Your task to perform on an android device: create a new album in the google photos Image 0: 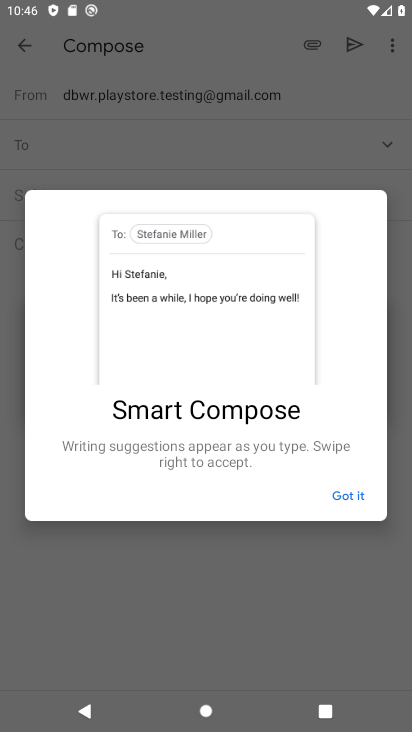
Step 0: press home button
Your task to perform on an android device: create a new album in the google photos Image 1: 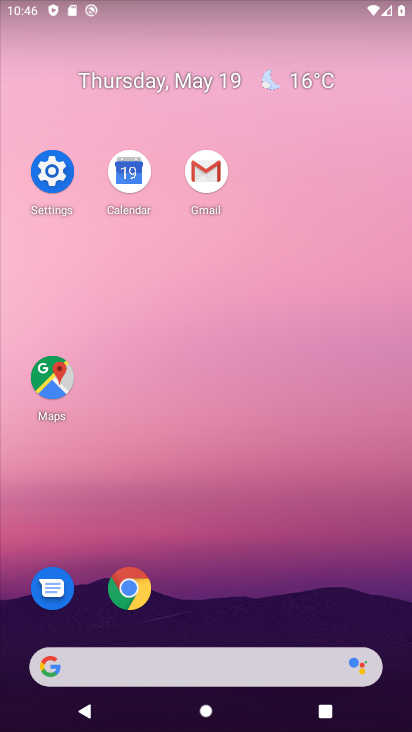
Step 1: drag from (264, 609) to (292, 287)
Your task to perform on an android device: create a new album in the google photos Image 2: 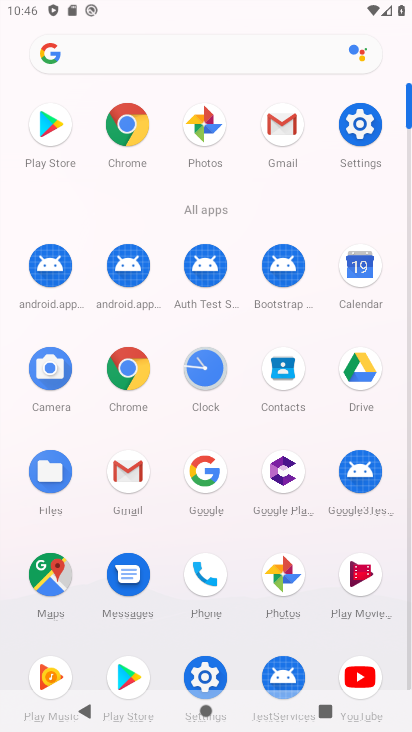
Step 2: click (284, 562)
Your task to perform on an android device: create a new album in the google photos Image 3: 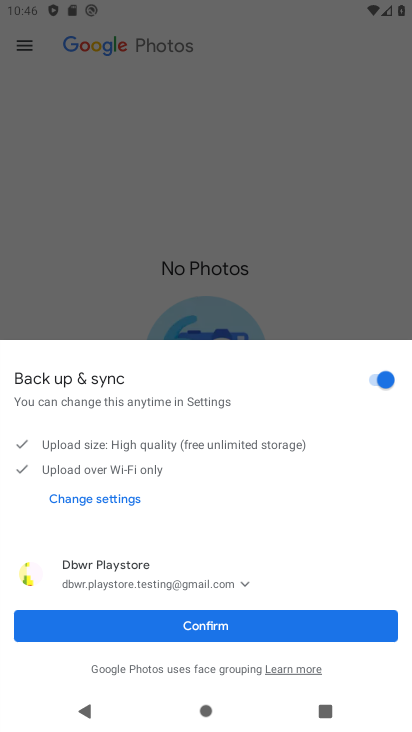
Step 3: click (280, 620)
Your task to perform on an android device: create a new album in the google photos Image 4: 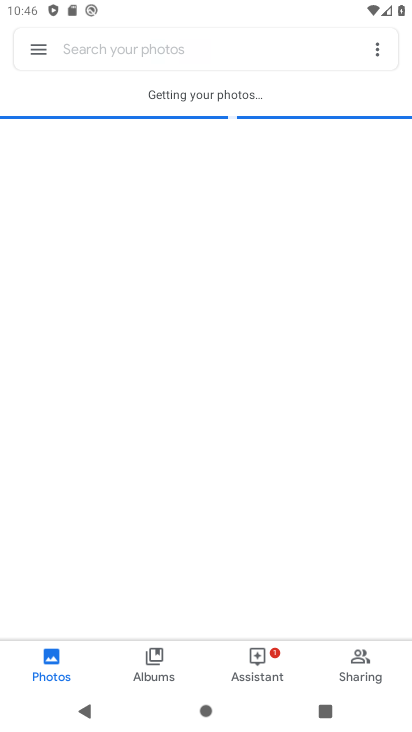
Step 4: click (142, 662)
Your task to perform on an android device: create a new album in the google photos Image 5: 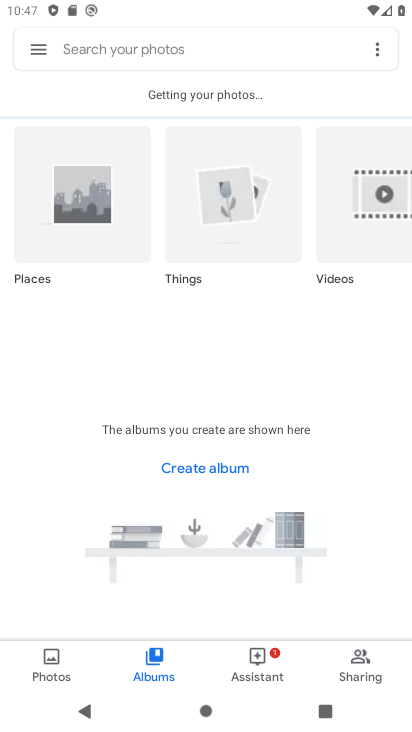
Step 5: drag from (338, 515) to (382, 276)
Your task to perform on an android device: create a new album in the google photos Image 6: 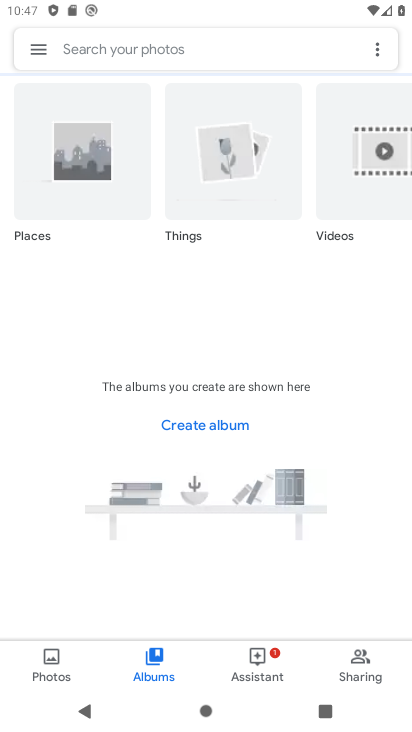
Step 6: click (232, 421)
Your task to perform on an android device: create a new album in the google photos Image 7: 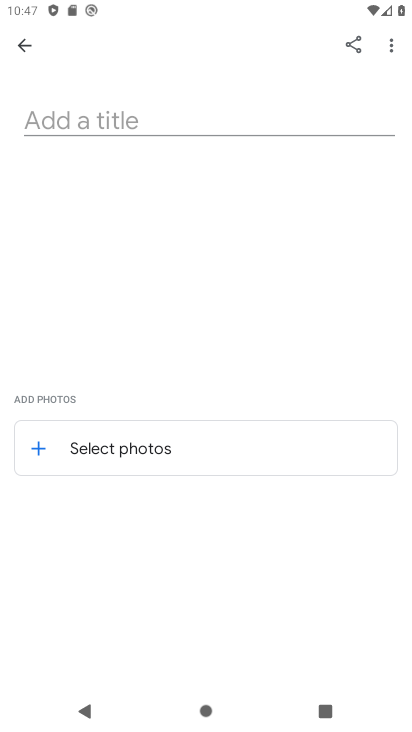
Step 7: click (294, 115)
Your task to perform on an android device: create a new album in the google photos Image 8: 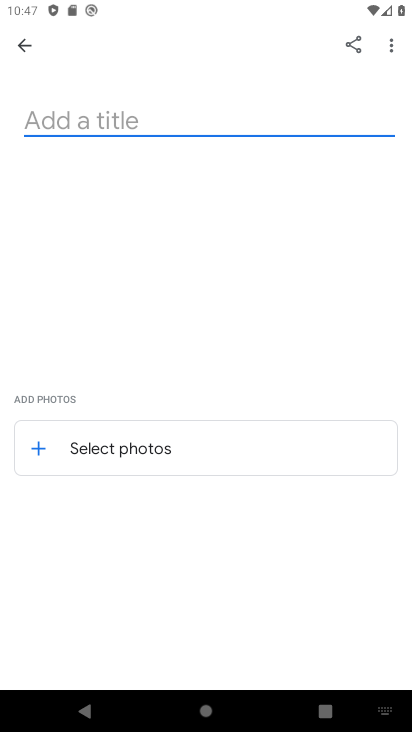
Step 8: type "ccc"
Your task to perform on an android device: create a new album in the google photos Image 9: 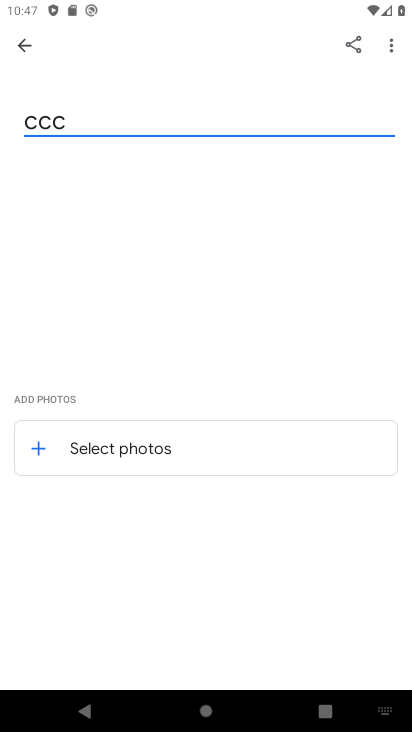
Step 9: click (161, 456)
Your task to perform on an android device: create a new album in the google photos Image 10: 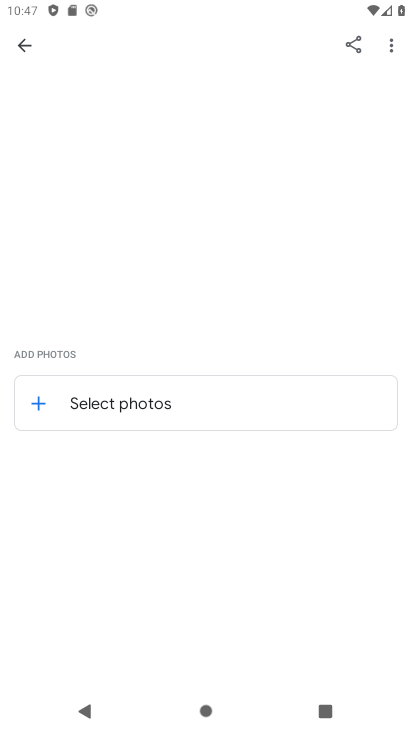
Step 10: click (113, 394)
Your task to perform on an android device: create a new album in the google photos Image 11: 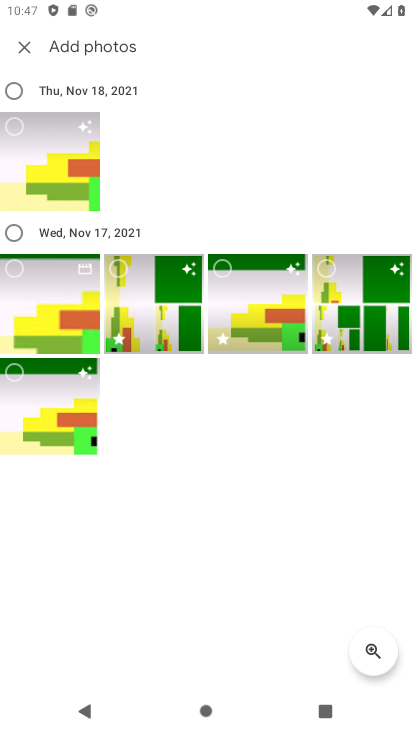
Step 11: click (21, 267)
Your task to perform on an android device: create a new album in the google photos Image 12: 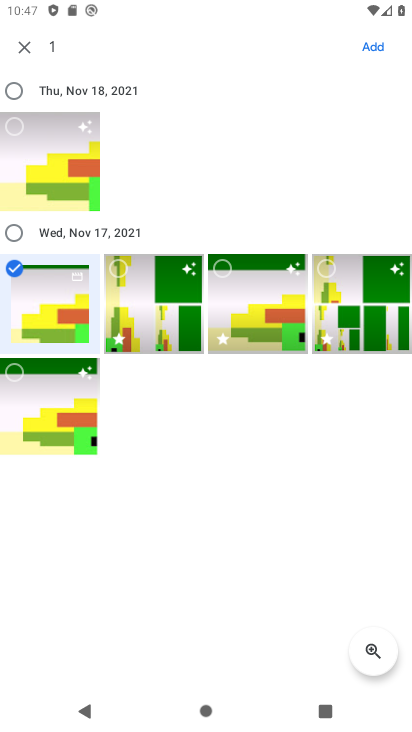
Step 12: click (224, 262)
Your task to perform on an android device: create a new album in the google photos Image 13: 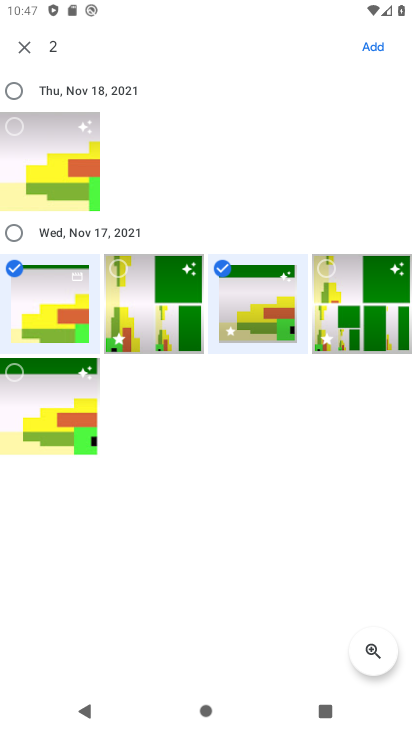
Step 13: click (382, 45)
Your task to perform on an android device: create a new album in the google photos Image 14: 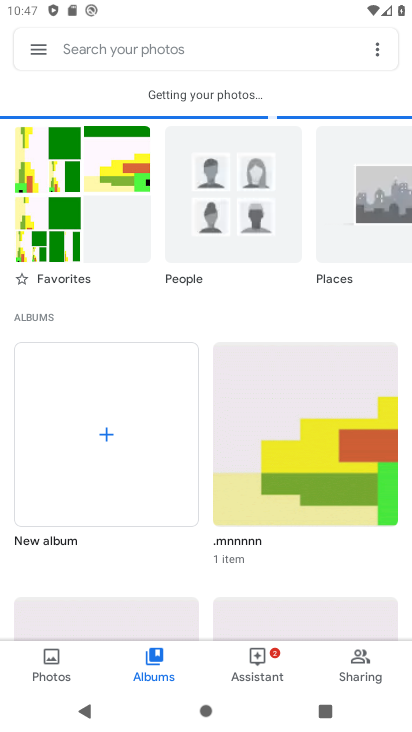
Step 14: task complete